Your task to perform on an android device: Go to settings Image 0: 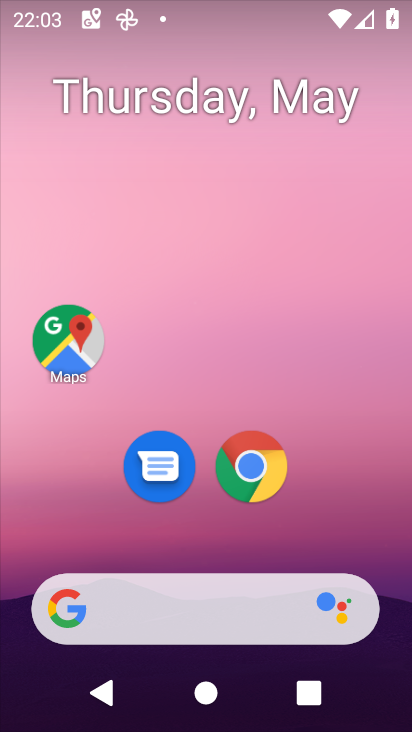
Step 0: drag from (337, 530) to (338, 145)
Your task to perform on an android device: Go to settings Image 1: 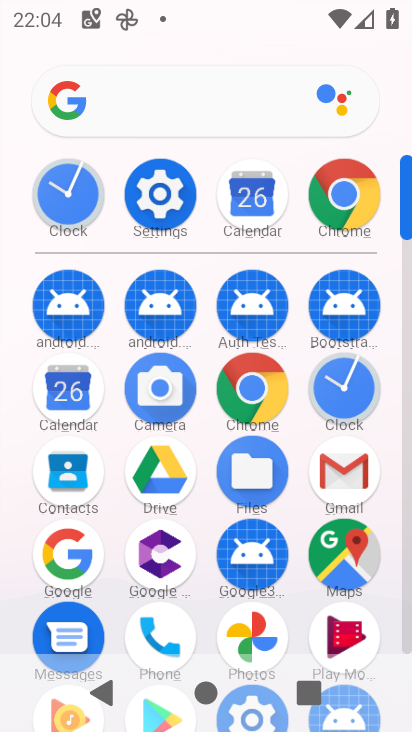
Step 1: click (160, 216)
Your task to perform on an android device: Go to settings Image 2: 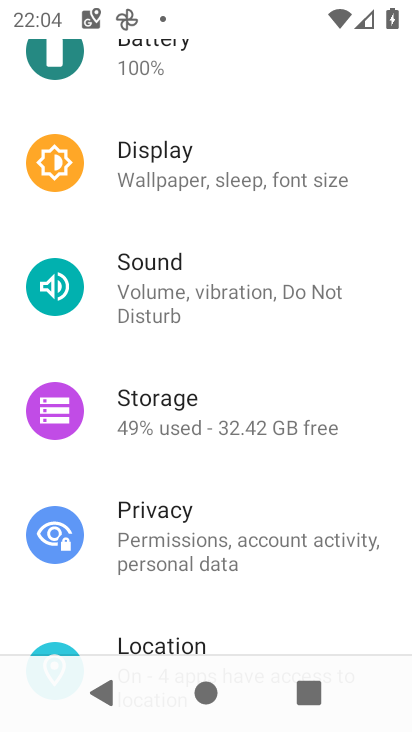
Step 2: task complete